Your task to perform on an android device: Is it going to rain today? Image 0: 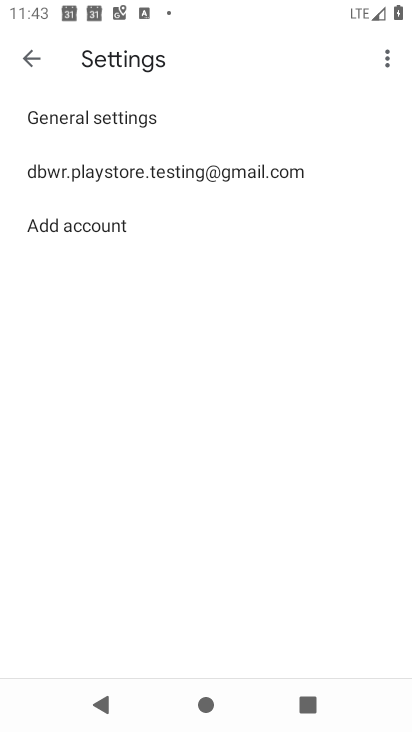
Step 0: press home button
Your task to perform on an android device: Is it going to rain today? Image 1: 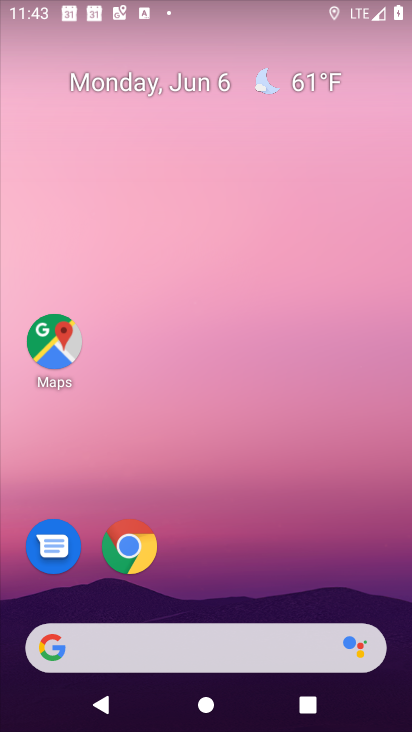
Step 1: click (301, 86)
Your task to perform on an android device: Is it going to rain today? Image 2: 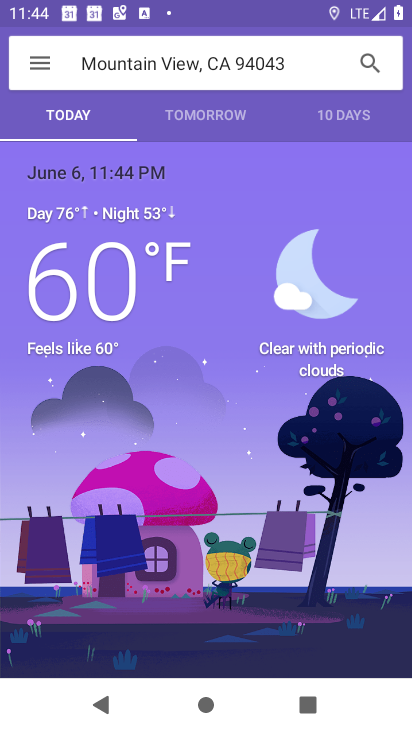
Step 2: task complete